Your task to perform on an android device: Go to settings Image 0: 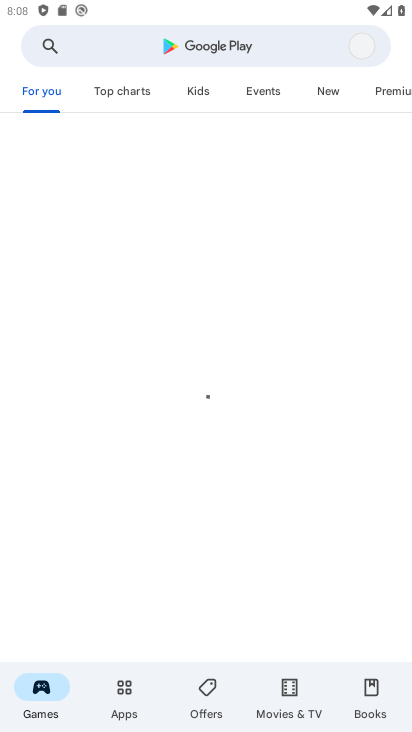
Step 0: press home button
Your task to perform on an android device: Go to settings Image 1: 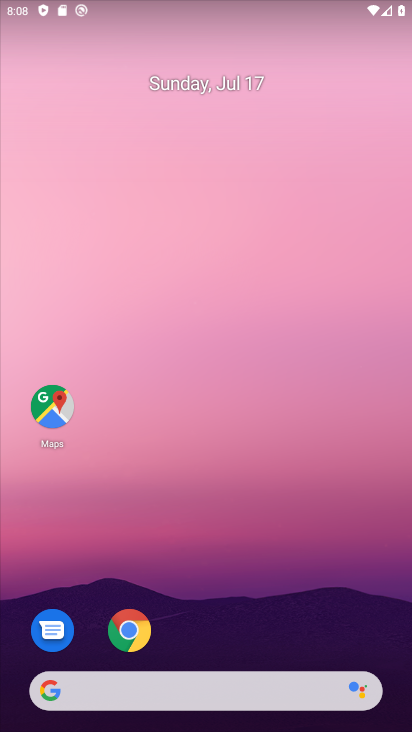
Step 1: drag from (339, 620) to (380, 81)
Your task to perform on an android device: Go to settings Image 2: 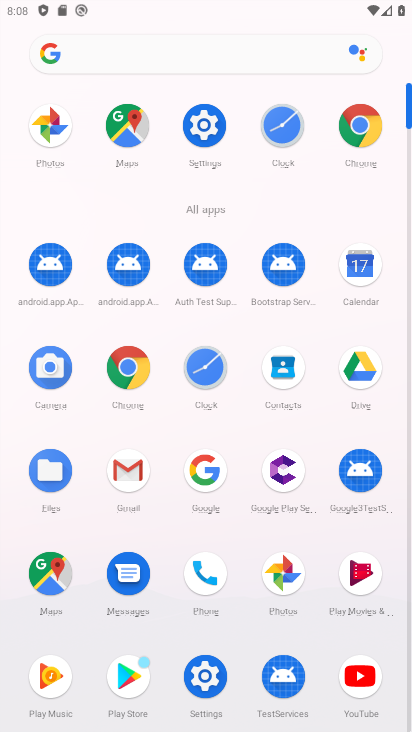
Step 2: click (204, 125)
Your task to perform on an android device: Go to settings Image 3: 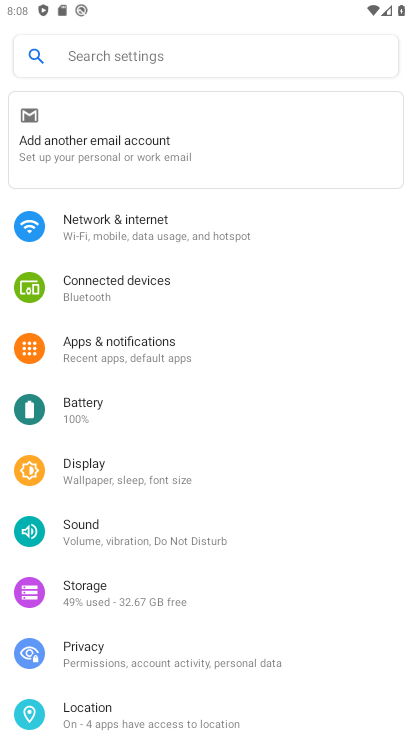
Step 3: task complete